Your task to perform on an android device: What is the news today? Image 0: 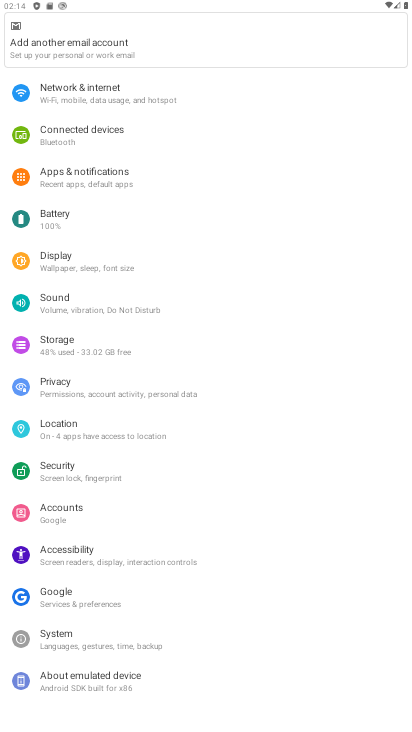
Step 0: press home button
Your task to perform on an android device: What is the news today? Image 1: 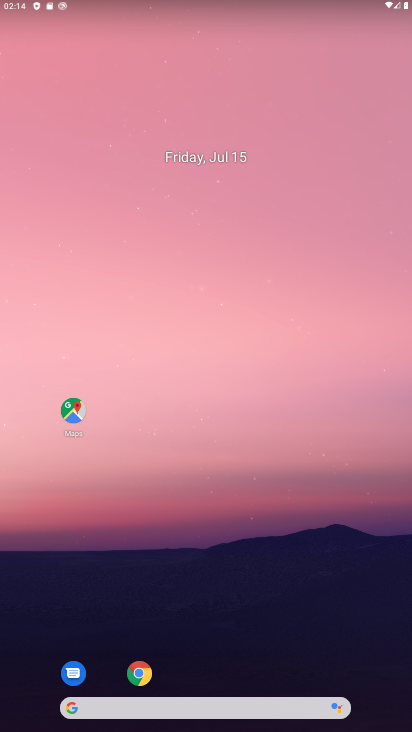
Step 1: drag from (198, 554) to (89, 2)
Your task to perform on an android device: What is the news today? Image 2: 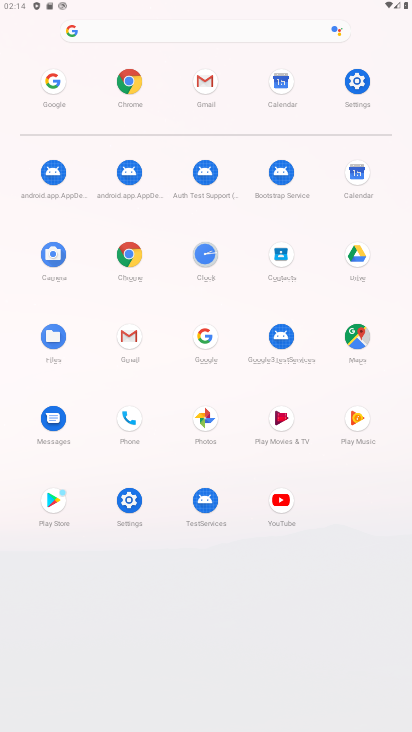
Step 2: click (124, 81)
Your task to perform on an android device: What is the news today? Image 3: 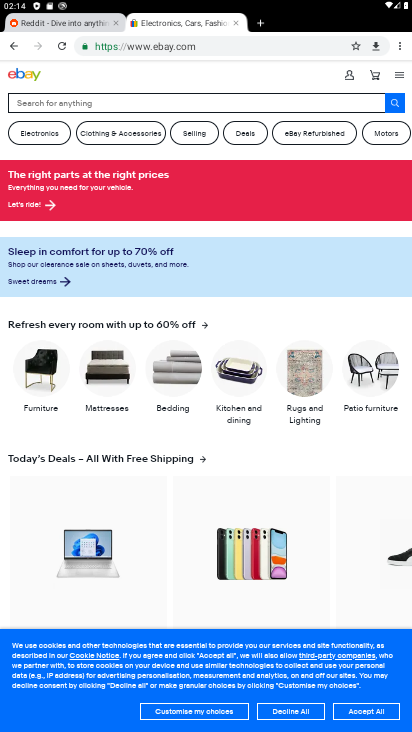
Step 3: task complete